Your task to perform on an android device: turn off notifications in google photos Image 0: 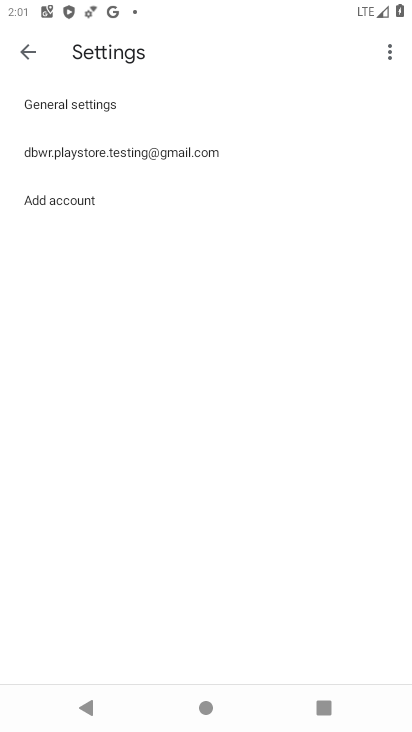
Step 0: press home button
Your task to perform on an android device: turn off notifications in google photos Image 1: 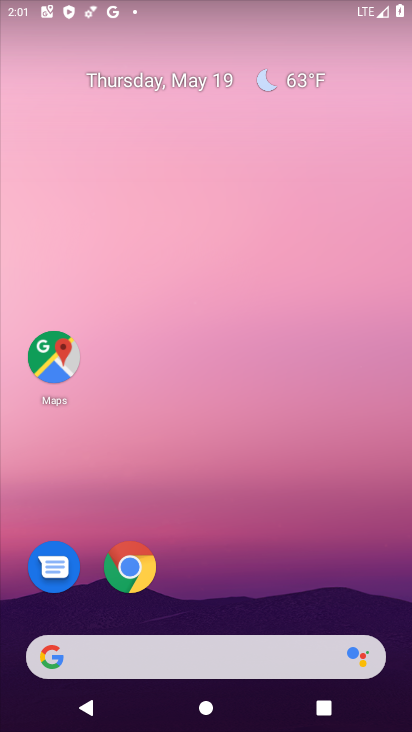
Step 1: drag from (357, 494) to (314, 113)
Your task to perform on an android device: turn off notifications in google photos Image 2: 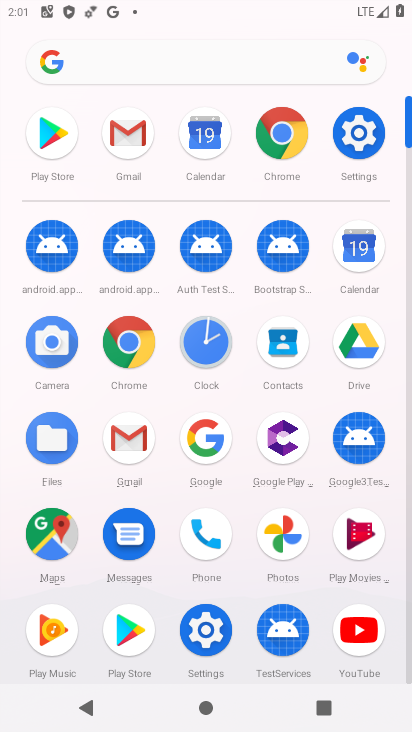
Step 2: click (278, 526)
Your task to perform on an android device: turn off notifications in google photos Image 3: 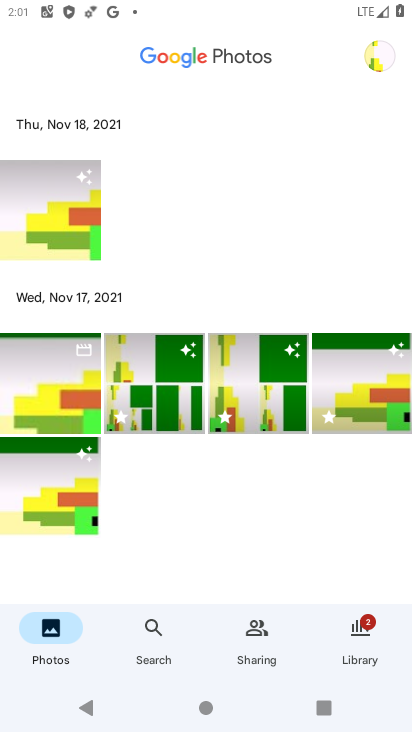
Step 3: click (381, 70)
Your task to perform on an android device: turn off notifications in google photos Image 4: 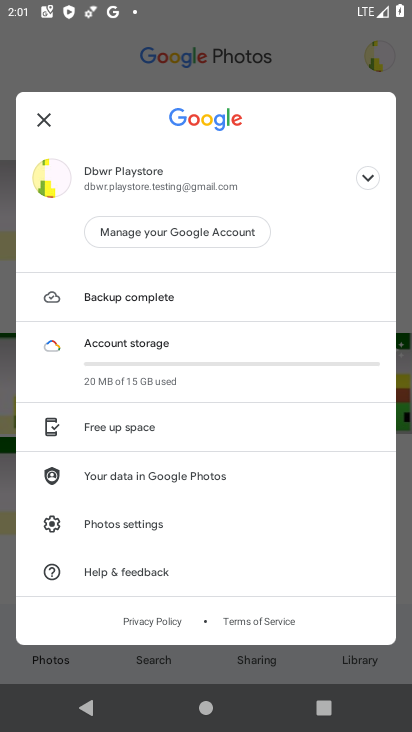
Step 4: click (121, 529)
Your task to perform on an android device: turn off notifications in google photos Image 5: 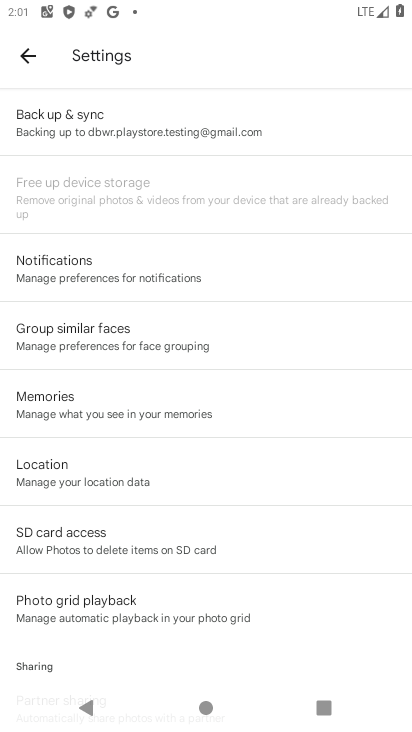
Step 5: click (72, 275)
Your task to perform on an android device: turn off notifications in google photos Image 6: 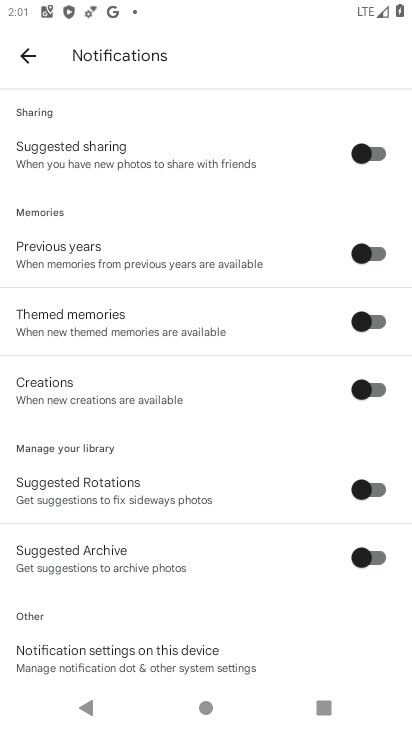
Step 6: drag from (132, 555) to (59, 246)
Your task to perform on an android device: turn off notifications in google photos Image 7: 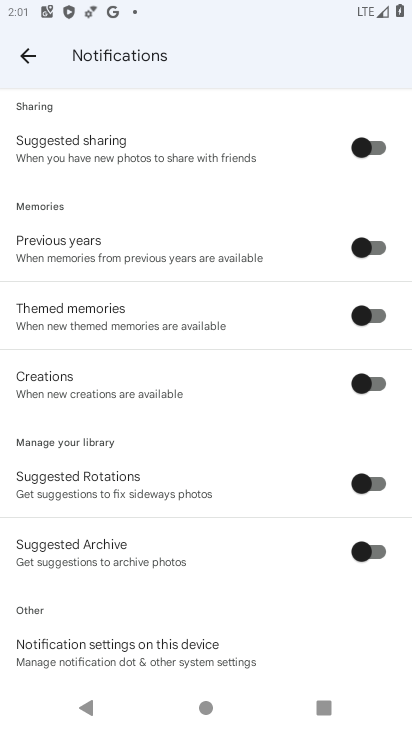
Step 7: drag from (202, 165) to (196, 487)
Your task to perform on an android device: turn off notifications in google photos Image 8: 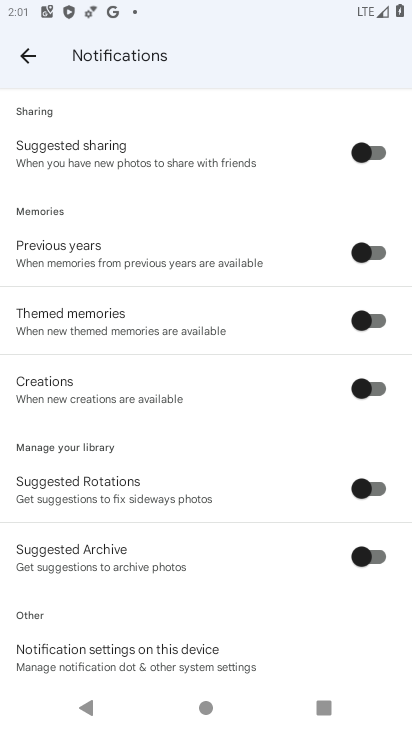
Step 8: click (354, 154)
Your task to perform on an android device: turn off notifications in google photos Image 9: 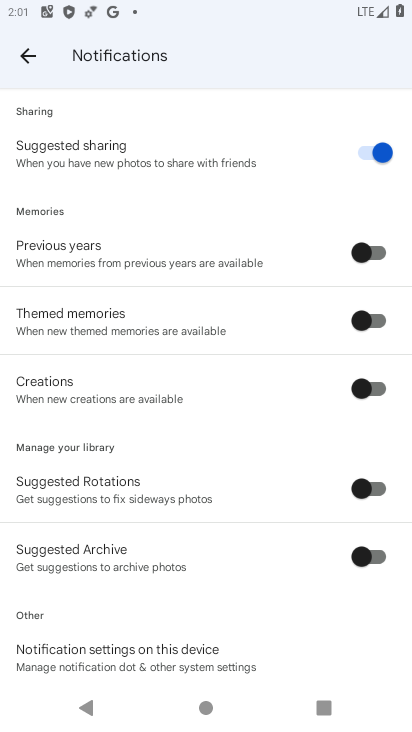
Step 9: drag from (201, 690) to (128, 296)
Your task to perform on an android device: turn off notifications in google photos Image 10: 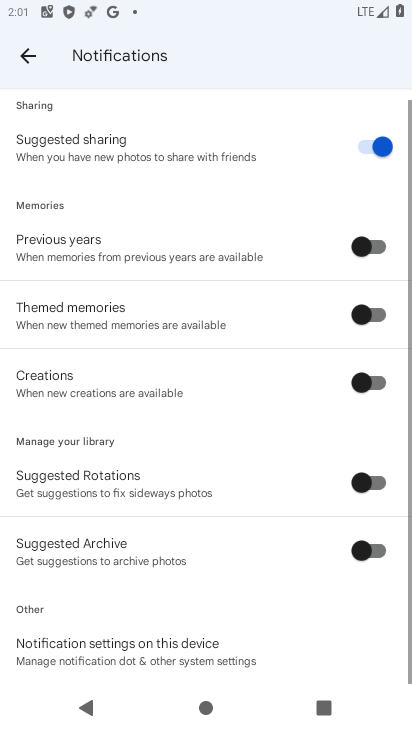
Step 10: click (97, 637)
Your task to perform on an android device: turn off notifications in google photos Image 11: 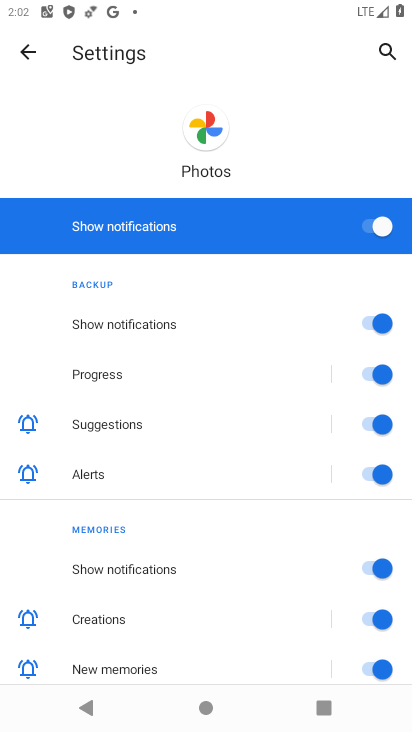
Step 11: click (357, 235)
Your task to perform on an android device: turn off notifications in google photos Image 12: 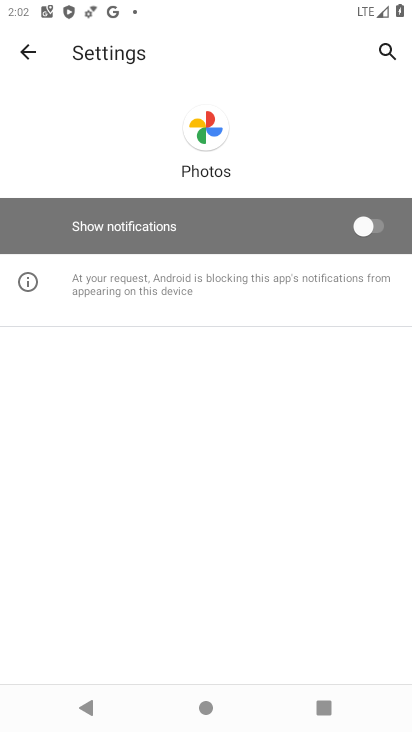
Step 12: task complete